Your task to perform on an android device: toggle show notifications on the lock screen Image 0: 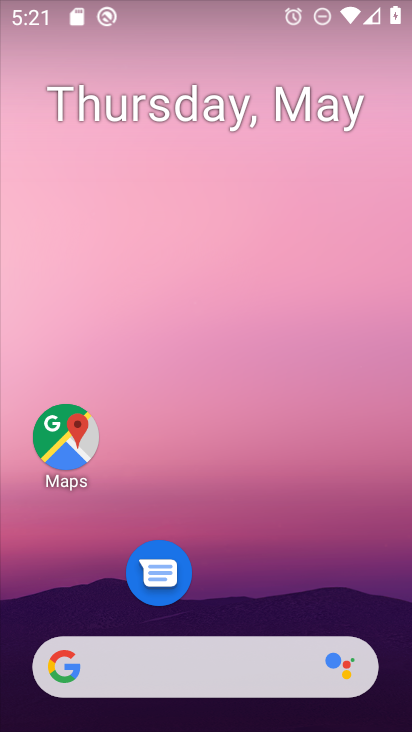
Step 0: drag from (217, 411) to (208, 68)
Your task to perform on an android device: toggle show notifications on the lock screen Image 1: 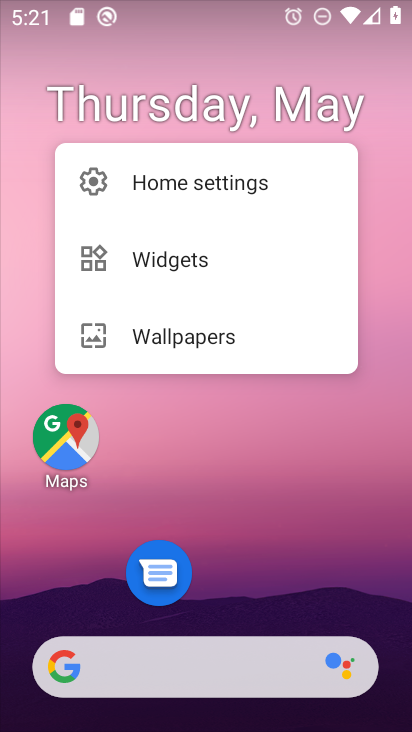
Step 1: click (245, 560)
Your task to perform on an android device: toggle show notifications on the lock screen Image 2: 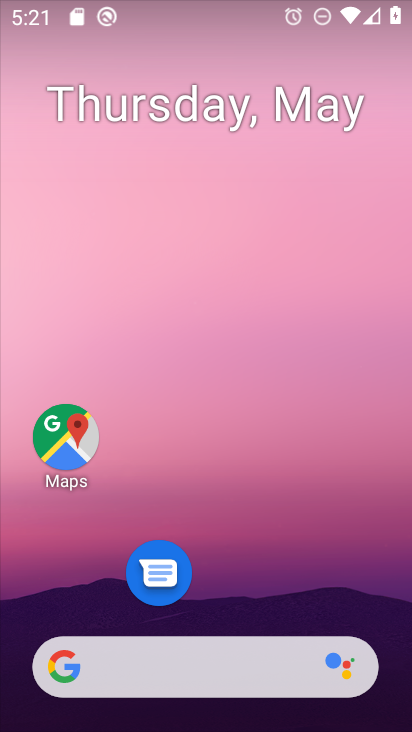
Step 2: drag from (221, 617) to (228, 199)
Your task to perform on an android device: toggle show notifications on the lock screen Image 3: 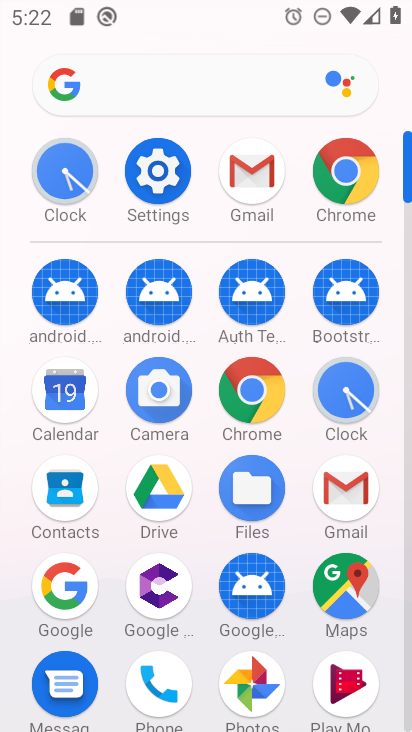
Step 3: click (152, 177)
Your task to perform on an android device: toggle show notifications on the lock screen Image 4: 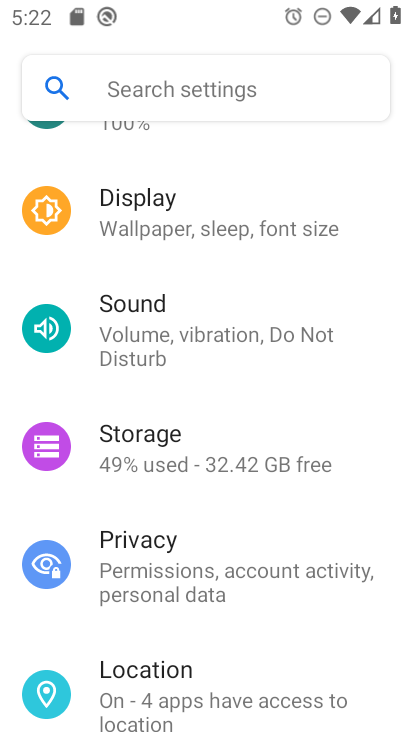
Step 4: drag from (223, 205) to (208, 418)
Your task to perform on an android device: toggle show notifications on the lock screen Image 5: 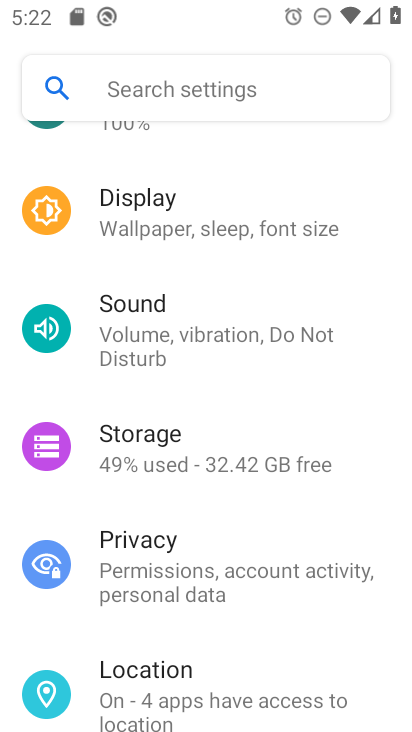
Step 5: drag from (236, 261) to (203, 509)
Your task to perform on an android device: toggle show notifications on the lock screen Image 6: 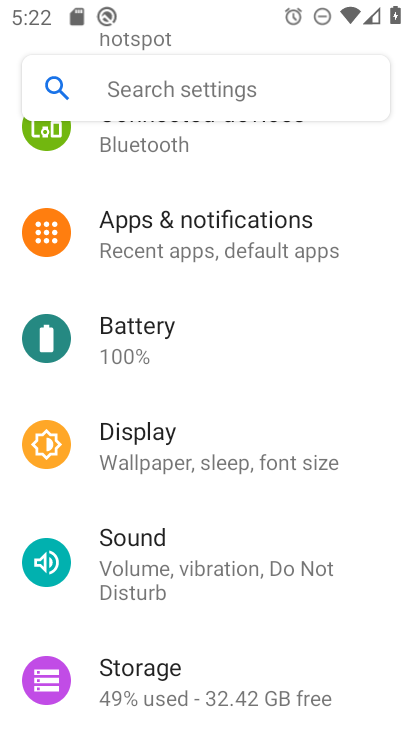
Step 6: click (155, 233)
Your task to perform on an android device: toggle show notifications on the lock screen Image 7: 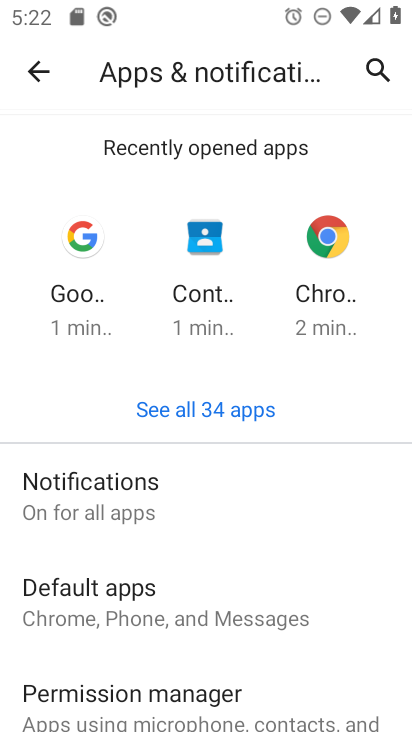
Step 7: click (121, 368)
Your task to perform on an android device: toggle show notifications on the lock screen Image 8: 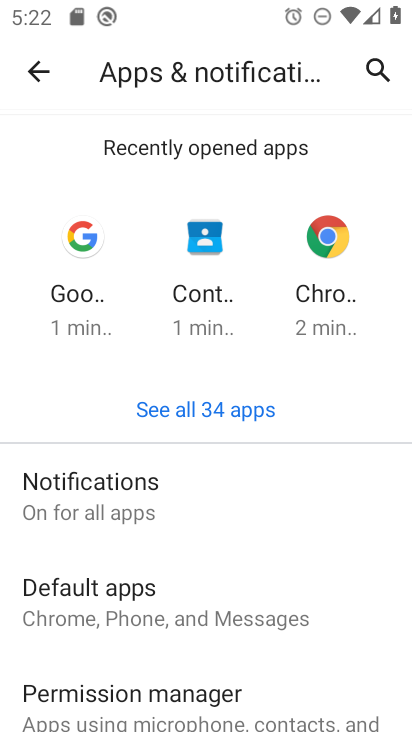
Step 8: click (116, 478)
Your task to perform on an android device: toggle show notifications on the lock screen Image 9: 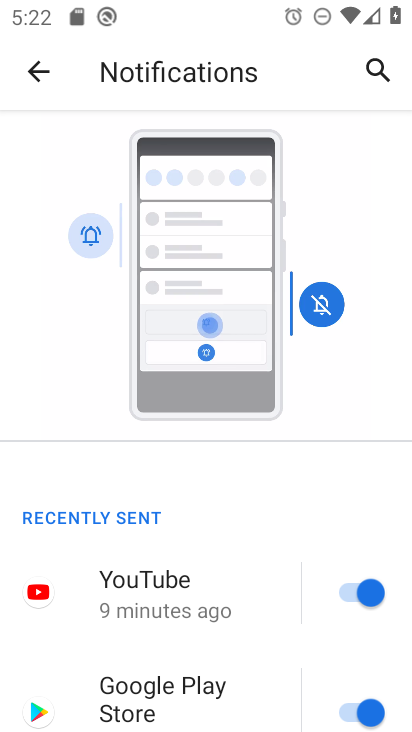
Step 9: drag from (203, 670) to (177, 64)
Your task to perform on an android device: toggle show notifications on the lock screen Image 10: 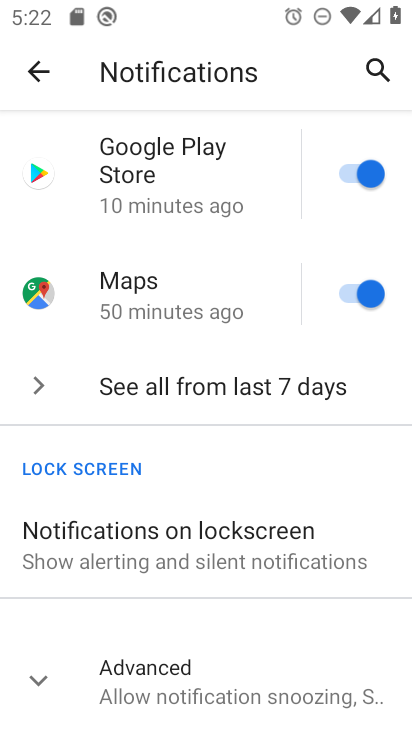
Step 10: click (183, 536)
Your task to perform on an android device: toggle show notifications on the lock screen Image 11: 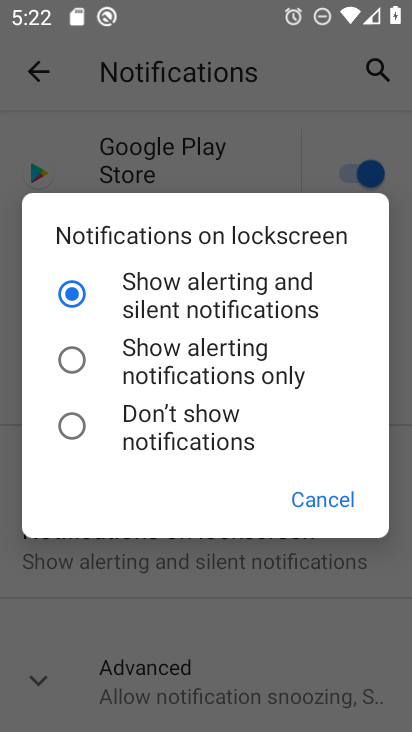
Step 11: click (86, 428)
Your task to perform on an android device: toggle show notifications on the lock screen Image 12: 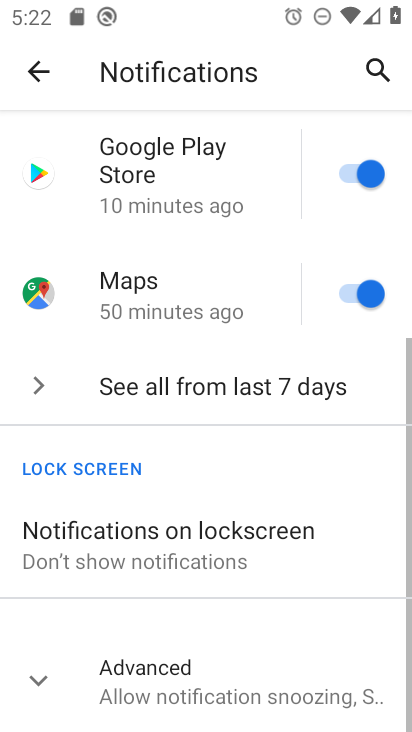
Step 12: task complete